Your task to perform on an android device: turn off location Image 0: 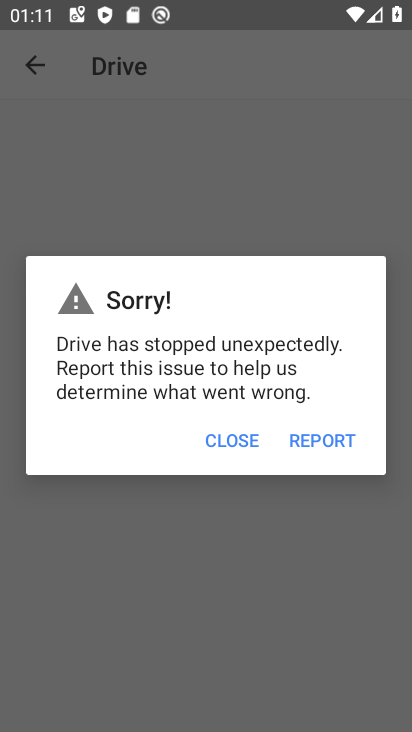
Step 0: press home button
Your task to perform on an android device: turn off location Image 1: 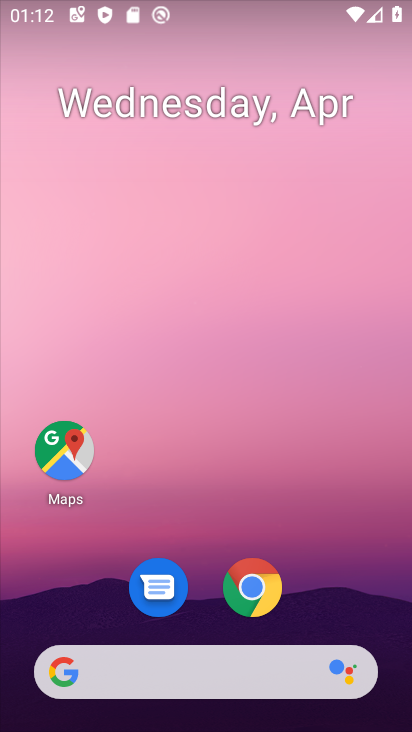
Step 1: drag from (361, 610) to (305, 6)
Your task to perform on an android device: turn off location Image 2: 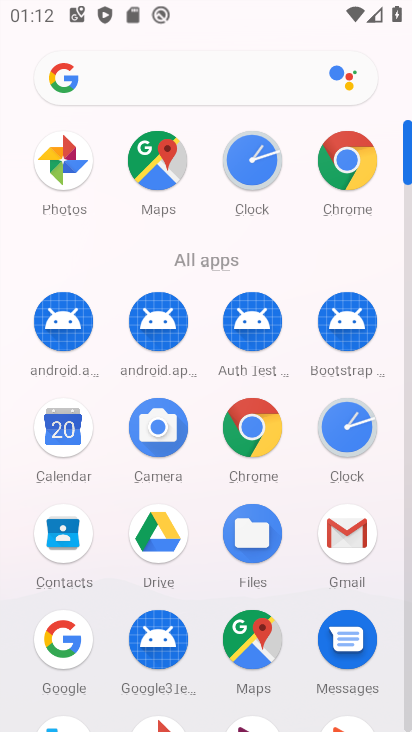
Step 2: click (410, 571)
Your task to perform on an android device: turn off location Image 3: 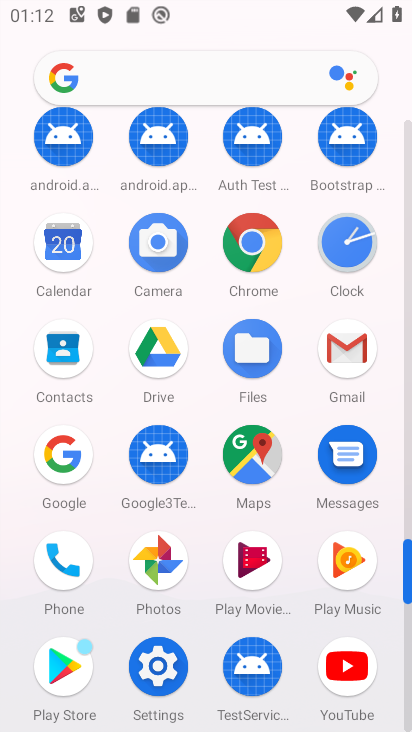
Step 3: click (154, 674)
Your task to perform on an android device: turn off location Image 4: 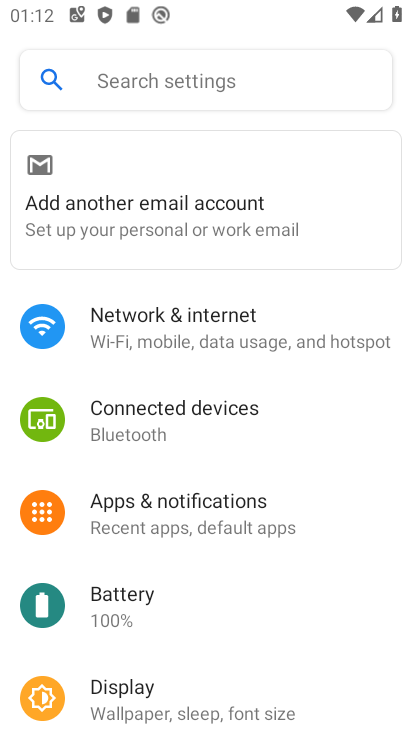
Step 4: drag from (379, 616) to (346, 416)
Your task to perform on an android device: turn off location Image 5: 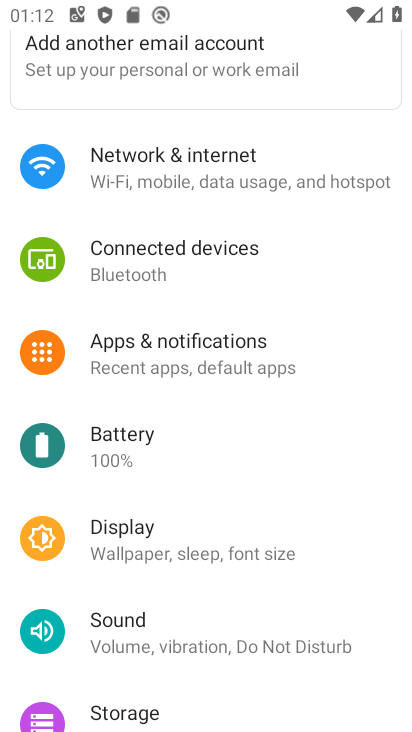
Step 5: drag from (354, 594) to (322, 460)
Your task to perform on an android device: turn off location Image 6: 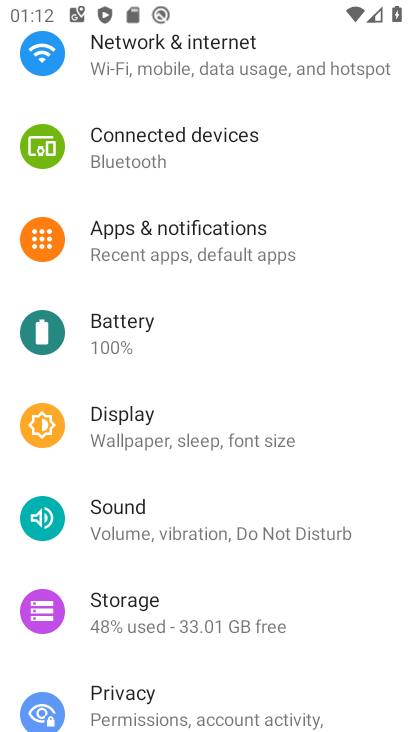
Step 6: drag from (280, 574) to (282, 327)
Your task to perform on an android device: turn off location Image 7: 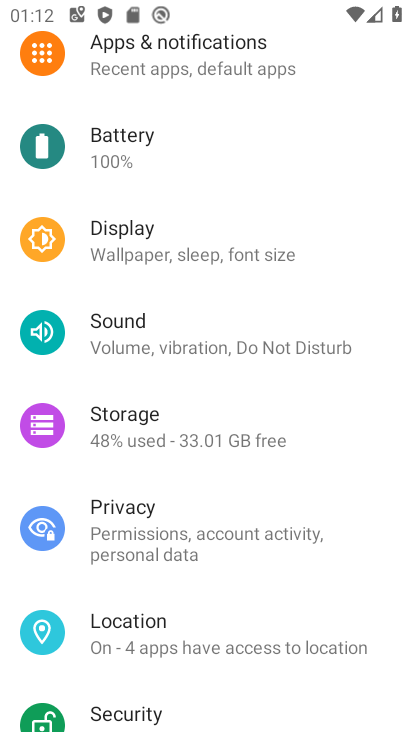
Step 7: click (146, 640)
Your task to perform on an android device: turn off location Image 8: 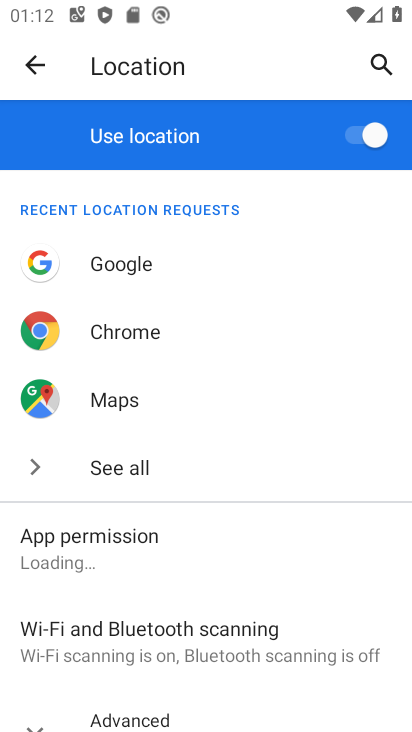
Step 8: click (362, 139)
Your task to perform on an android device: turn off location Image 9: 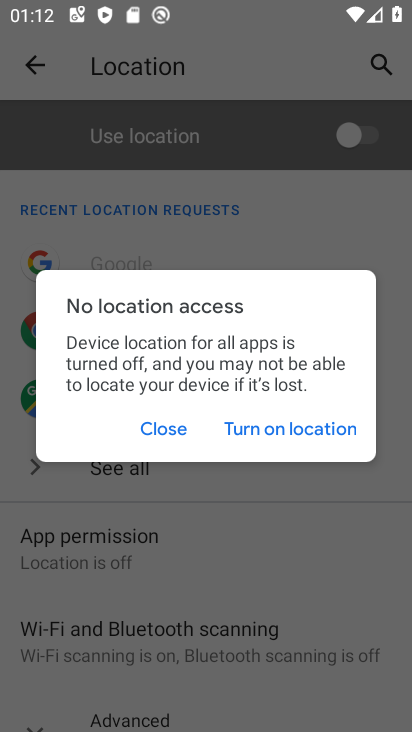
Step 9: task complete